Your task to perform on an android device: open app "Facebook" Image 0: 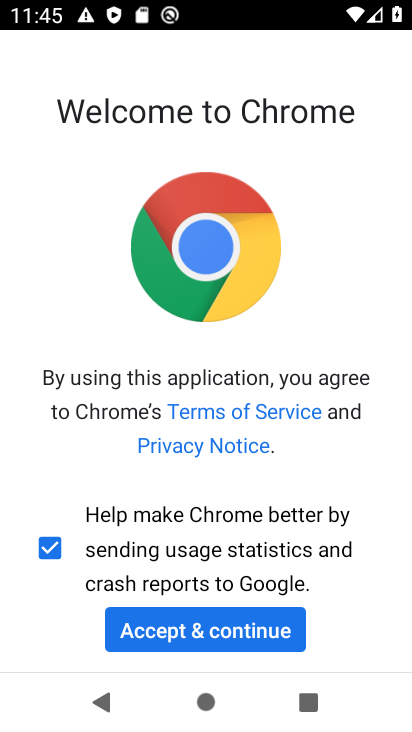
Step 0: press back button
Your task to perform on an android device: open app "Facebook" Image 1: 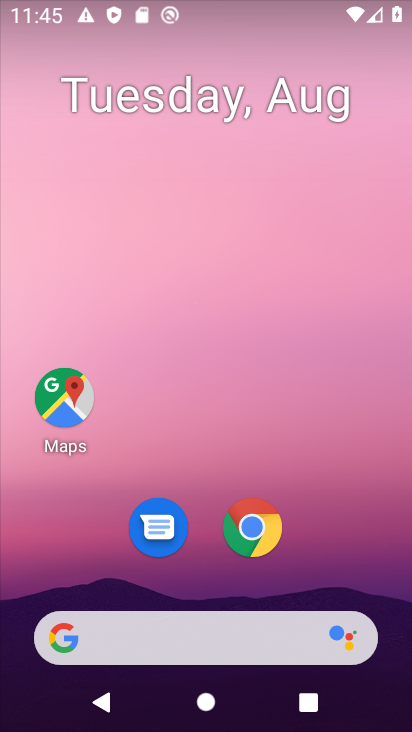
Step 1: drag from (208, 573) to (279, 76)
Your task to perform on an android device: open app "Facebook" Image 2: 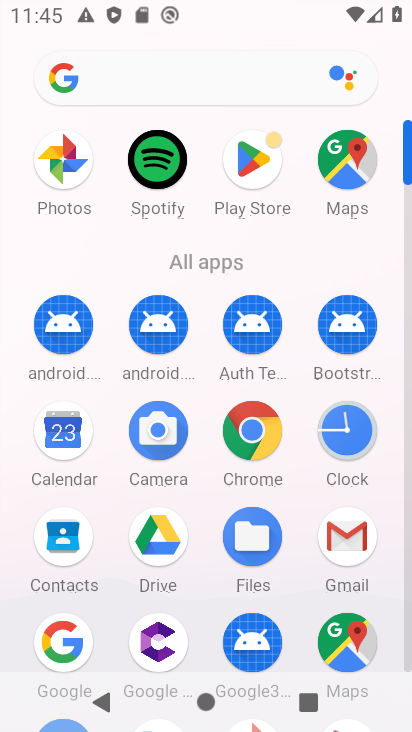
Step 2: click (256, 157)
Your task to perform on an android device: open app "Facebook" Image 3: 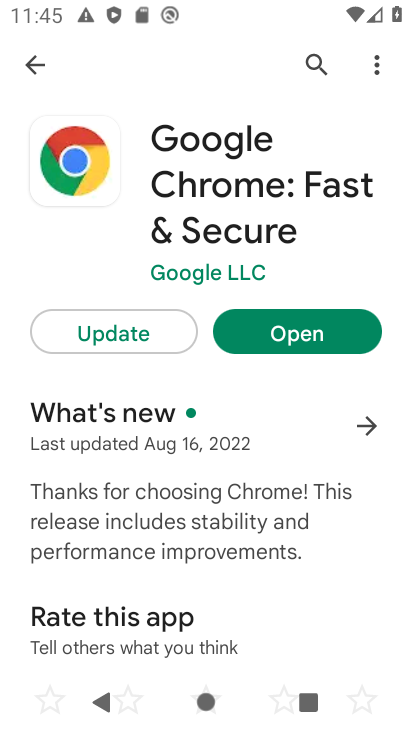
Step 3: click (312, 57)
Your task to perform on an android device: open app "Facebook" Image 4: 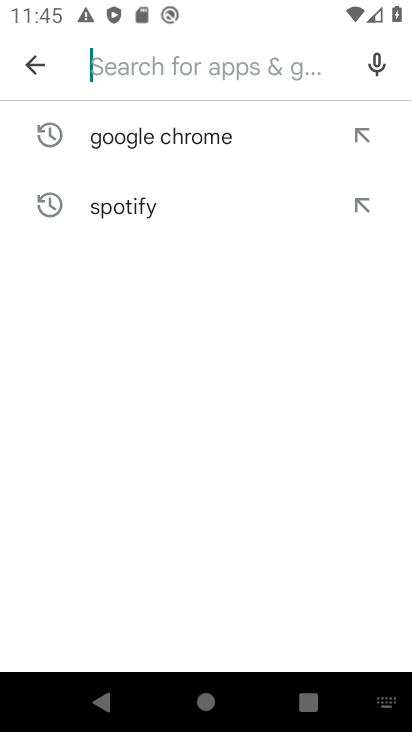
Step 4: click (143, 65)
Your task to perform on an android device: open app "Facebook" Image 5: 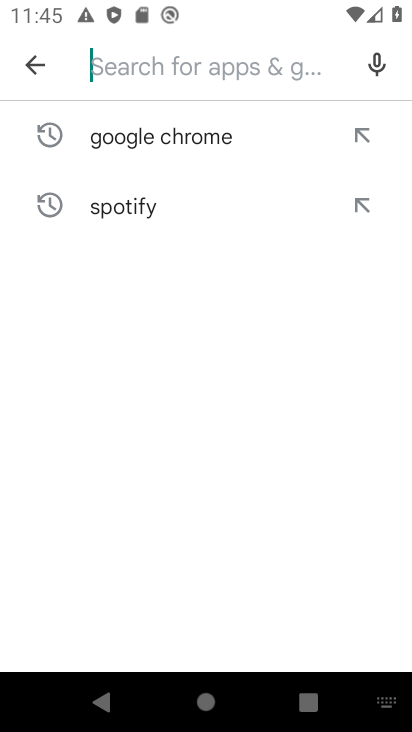
Step 5: click (208, 462)
Your task to perform on an android device: open app "Facebook" Image 6: 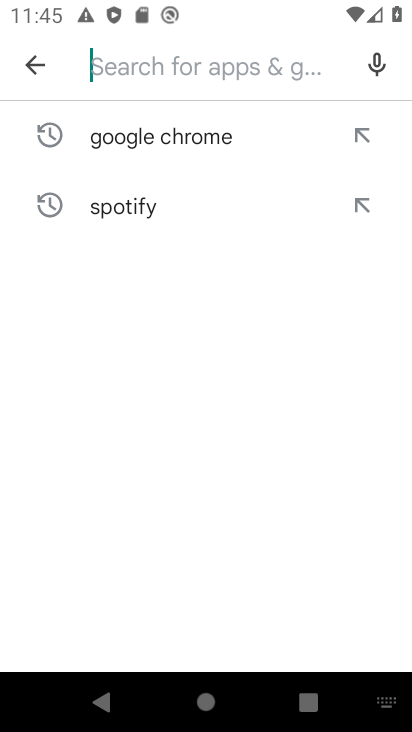
Step 6: type "Facebook"
Your task to perform on an android device: open app "Facebook" Image 7: 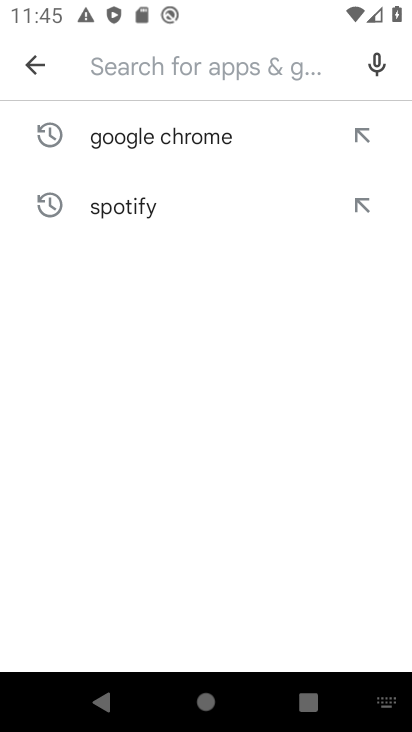
Step 7: click (208, 462)
Your task to perform on an android device: open app "Facebook" Image 8: 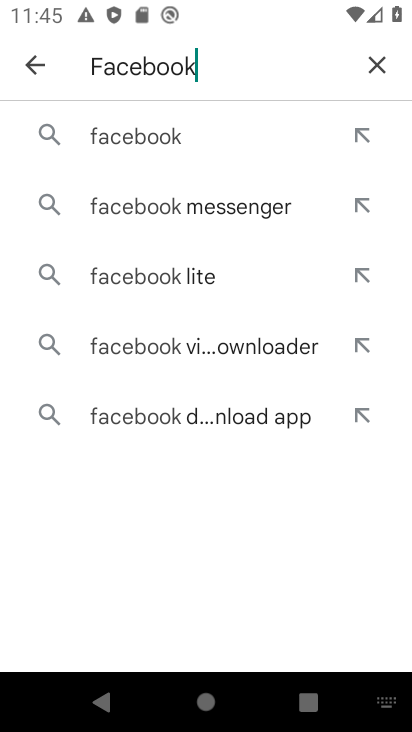
Step 8: click (183, 134)
Your task to perform on an android device: open app "Facebook" Image 9: 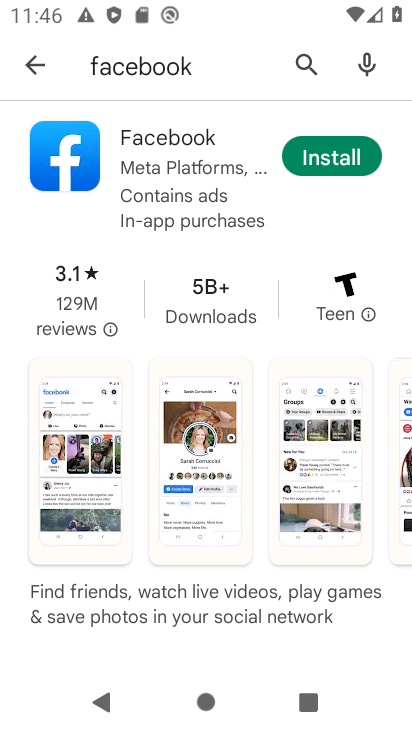
Step 9: task complete